Your task to perform on an android device: turn vacation reply on in the gmail app Image 0: 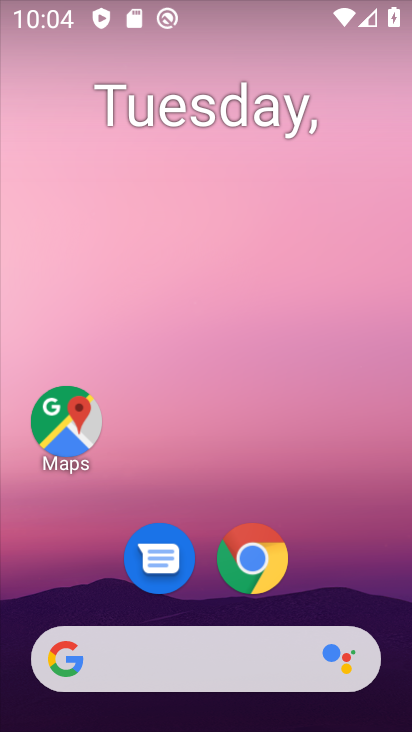
Step 0: drag from (327, 578) to (296, 53)
Your task to perform on an android device: turn vacation reply on in the gmail app Image 1: 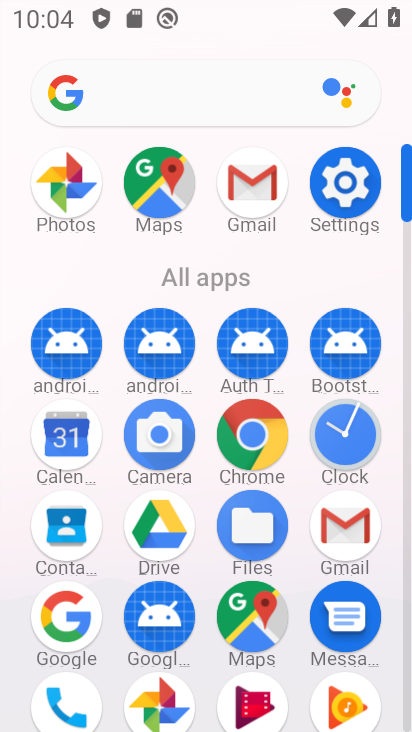
Step 1: click (241, 182)
Your task to perform on an android device: turn vacation reply on in the gmail app Image 2: 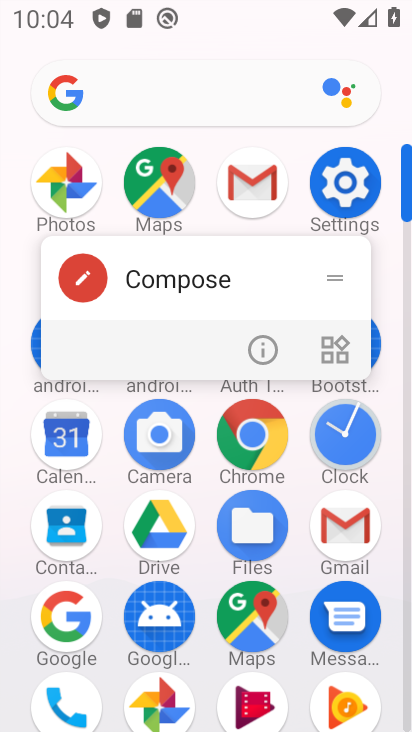
Step 2: click (250, 188)
Your task to perform on an android device: turn vacation reply on in the gmail app Image 3: 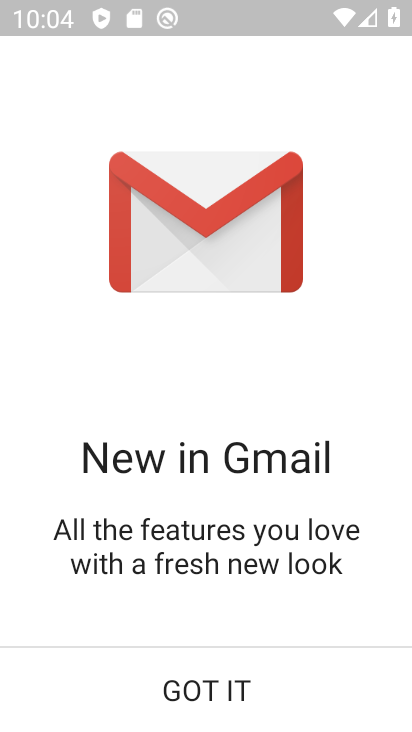
Step 3: click (195, 686)
Your task to perform on an android device: turn vacation reply on in the gmail app Image 4: 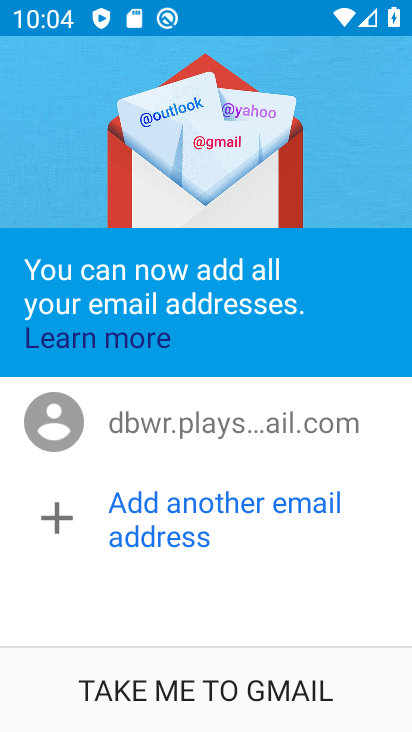
Step 4: click (195, 686)
Your task to perform on an android device: turn vacation reply on in the gmail app Image 5: 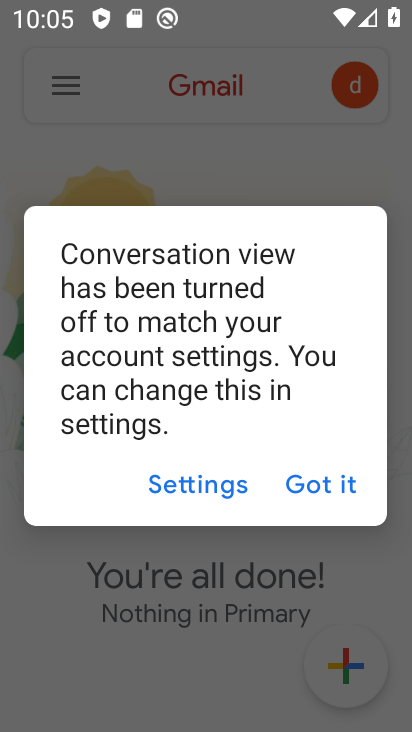
Step 5: click (319, 487)
Your task to perform on an android device: turn vacation reply on in the gmail app Image 6: 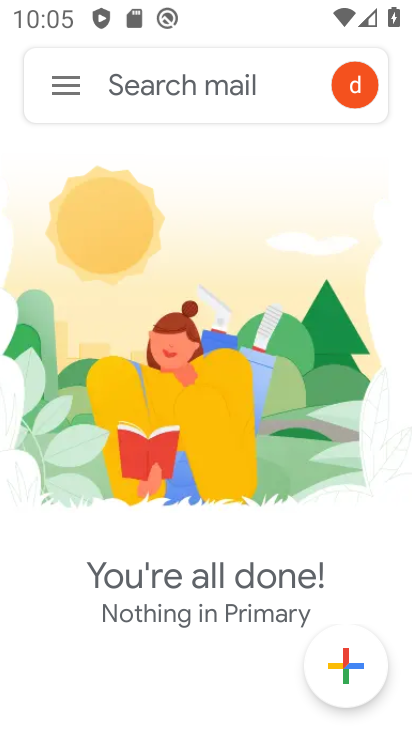
Step 6: click (68, 81)
Your task to perform on an android device: turn vacation reply on in the gmail app Image 7: 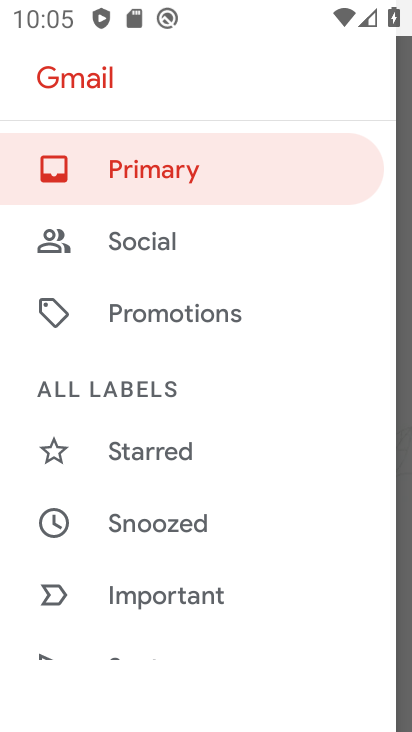
Step 7: drag from (218, 607) to (260, 40)
Your task to perform on an android device: turn vacation reply on in the gmail app Image 8: 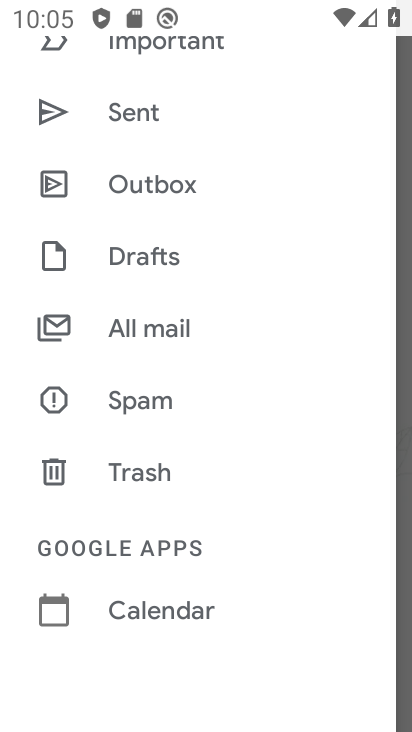
Step 8: drag from (180, 589) to (188, 92)
Your task to perform on an android device: turn vacation reply on in the gmail app Image 9: 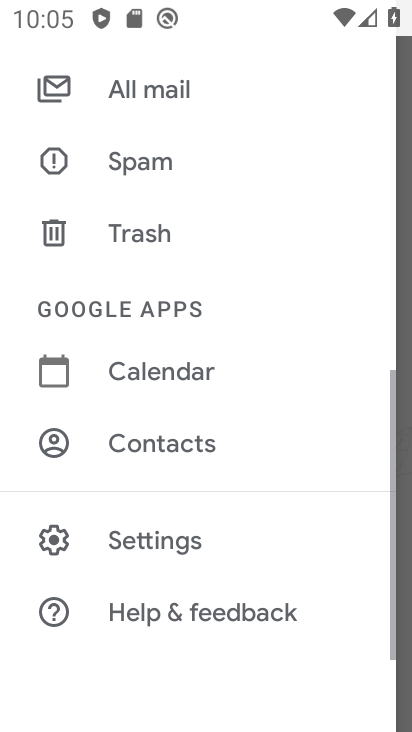
Step 9: click (169, 537)
Your task to perform on an android device: turn vacation reply on in the gmail app Image 10: 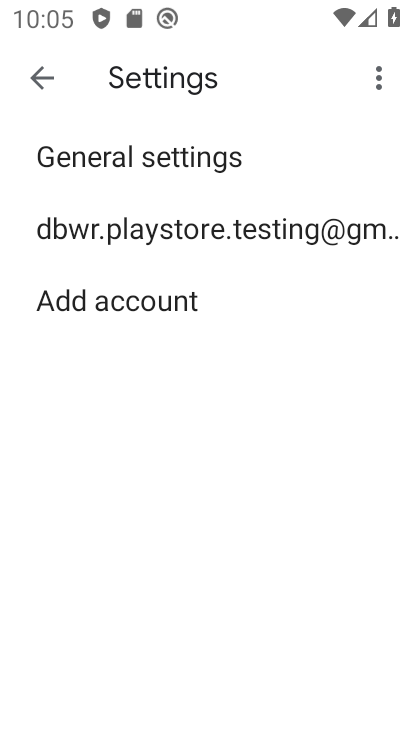
Step 10: click (188, 230)
Your task to perform on an android device: turn vacation reply on in the gmail app Image 11: 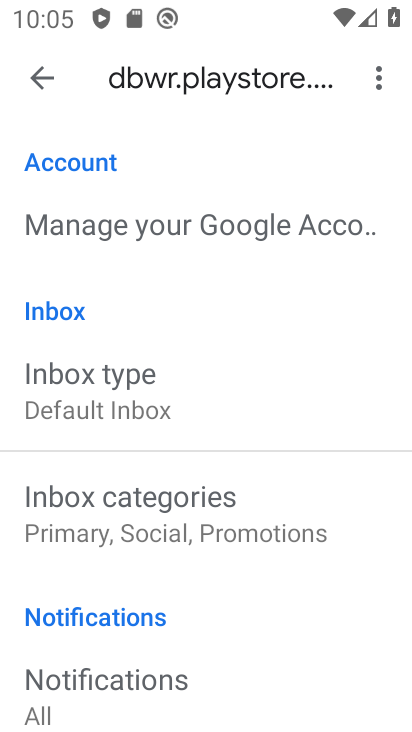
Step 11: drag from (194, 621) to (224, 18)
Your task to perform on an android device: turn vacation reply on in the gmail app Image 12: 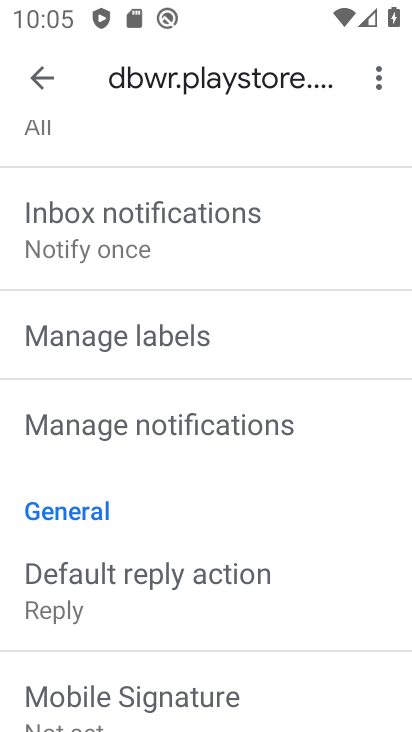
Step 12: drag from (151, 624) to (138, 255)
Your task to perform on an android device: turn vacation reply on in the gmail app Image 13: 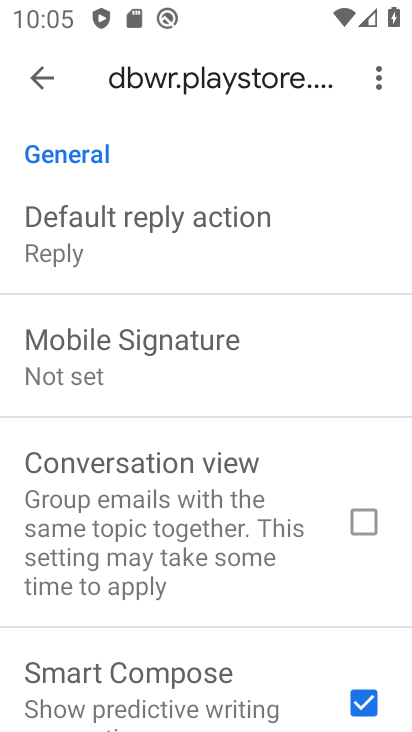
Step 13: drag from (150, 599) to (149, 113)
Your task to perform on an android device: turn vacation reply on in the gmail app Image 14: 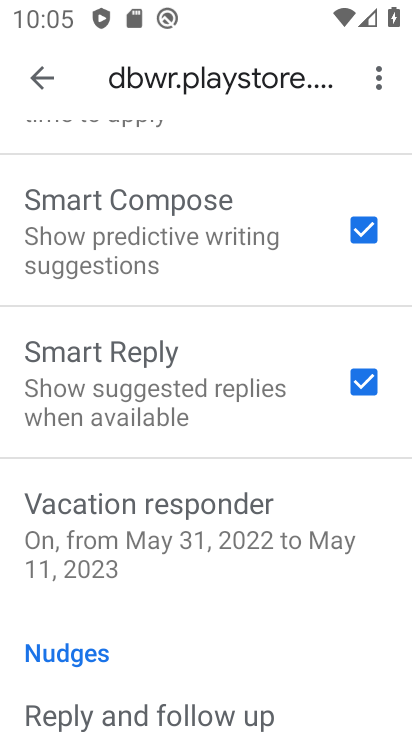
Step 14: click (184, 532)
Your task to perform on an android device: turn vacation reply on in the gmail app Image 15: 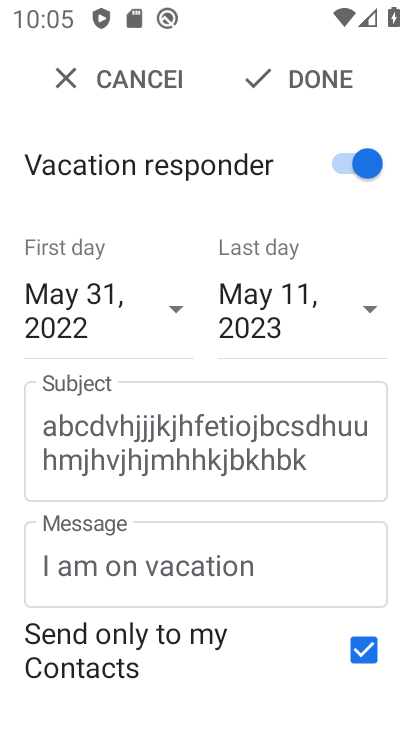
Step 15: click (308, 86)
Your task to perform on an android device: turn vacation reply on in the gmail app Image 16: 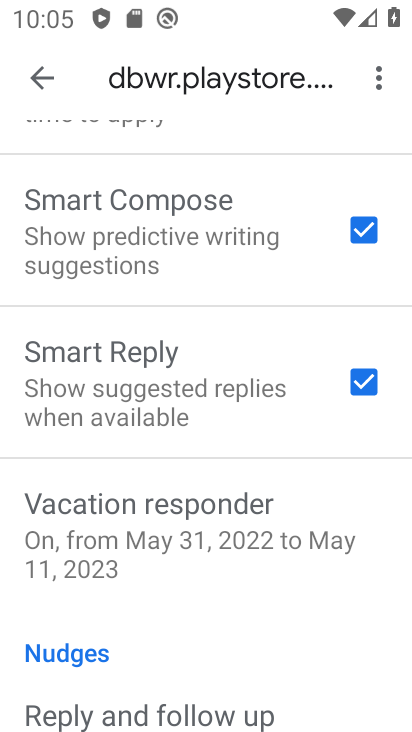
Step 16: task complete